Your task to perform on an android device: Go to display settings Image 0: 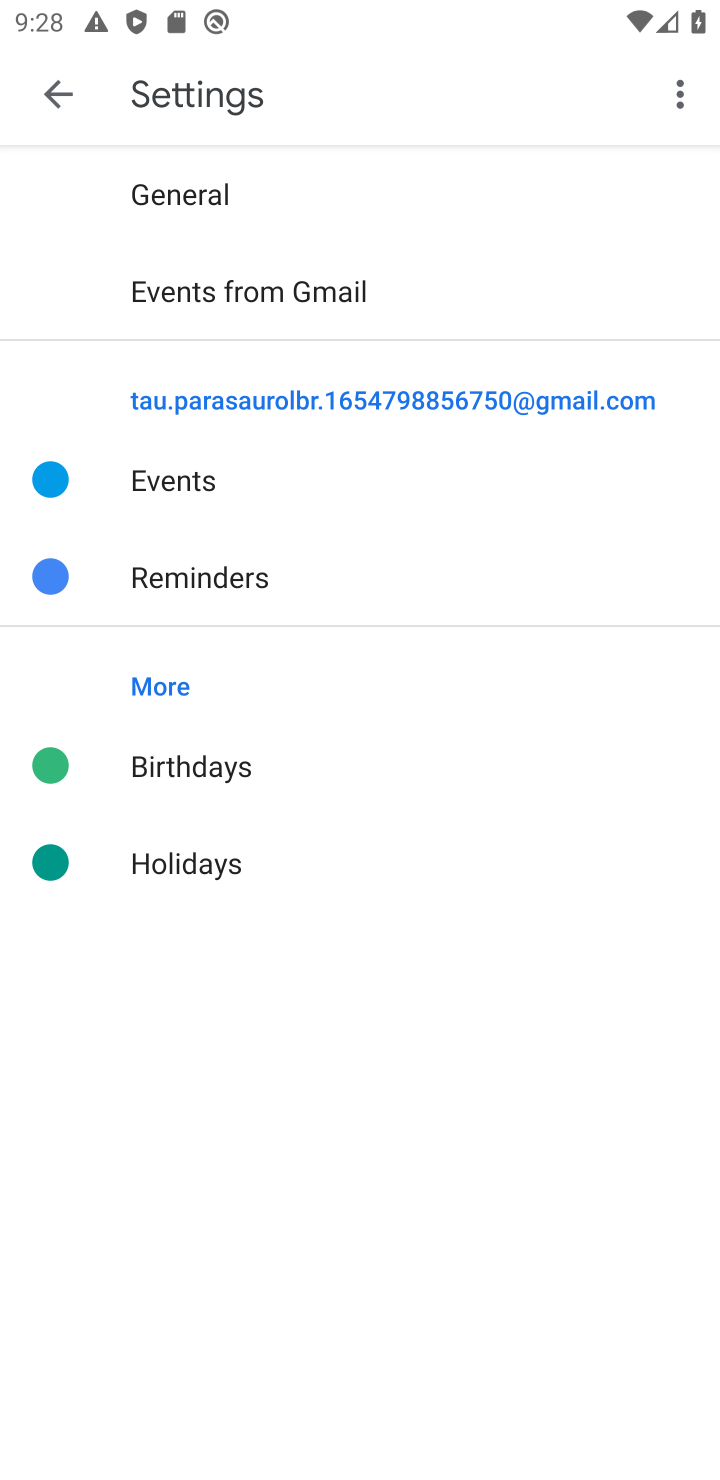
Step 0: press home button
Your task to perform on an android device: Go to display settings Image 1: 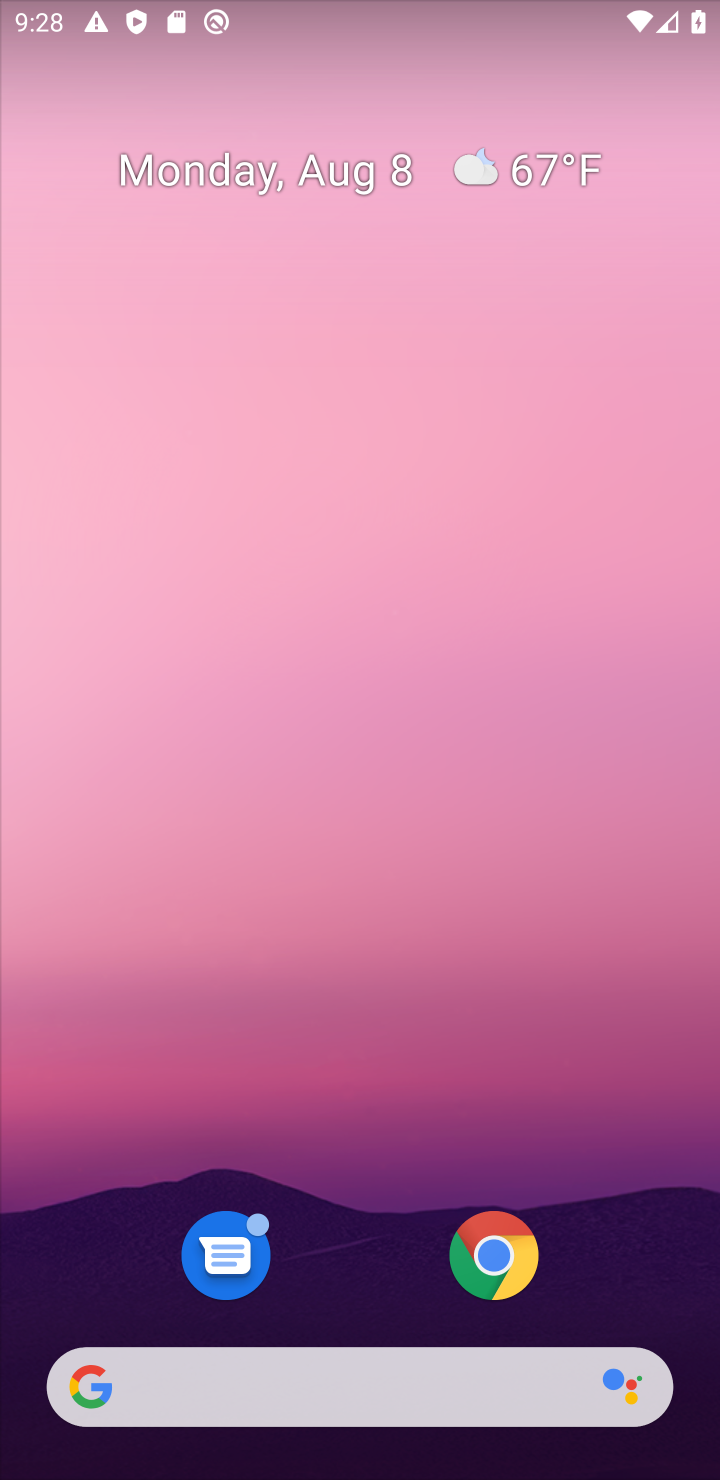
Step 1: drag from (23, 1410) to (335, 273)
Your task to perform on an android device: Go to display settings Image 2: 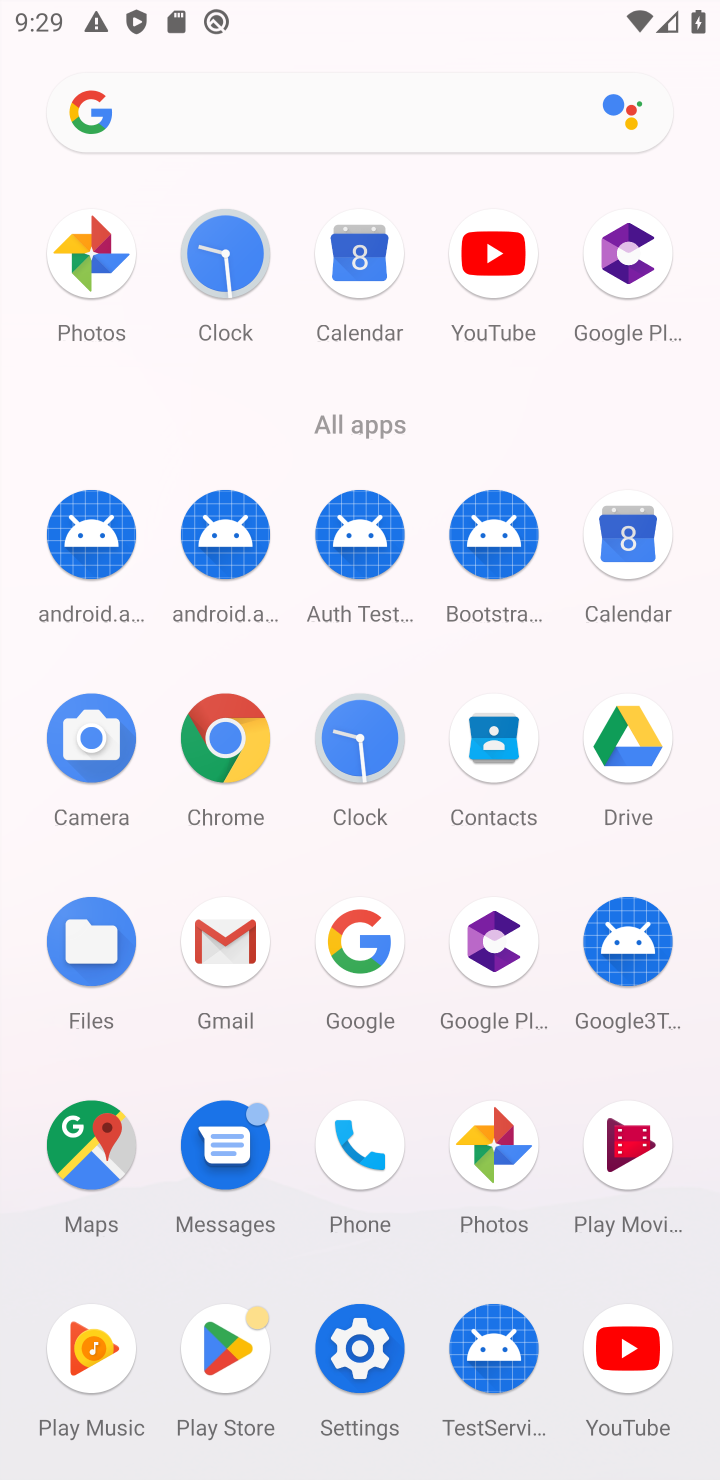
Step 2: click (362, 1353)
Your task to perform on an android device: Go to display settings Image 3: 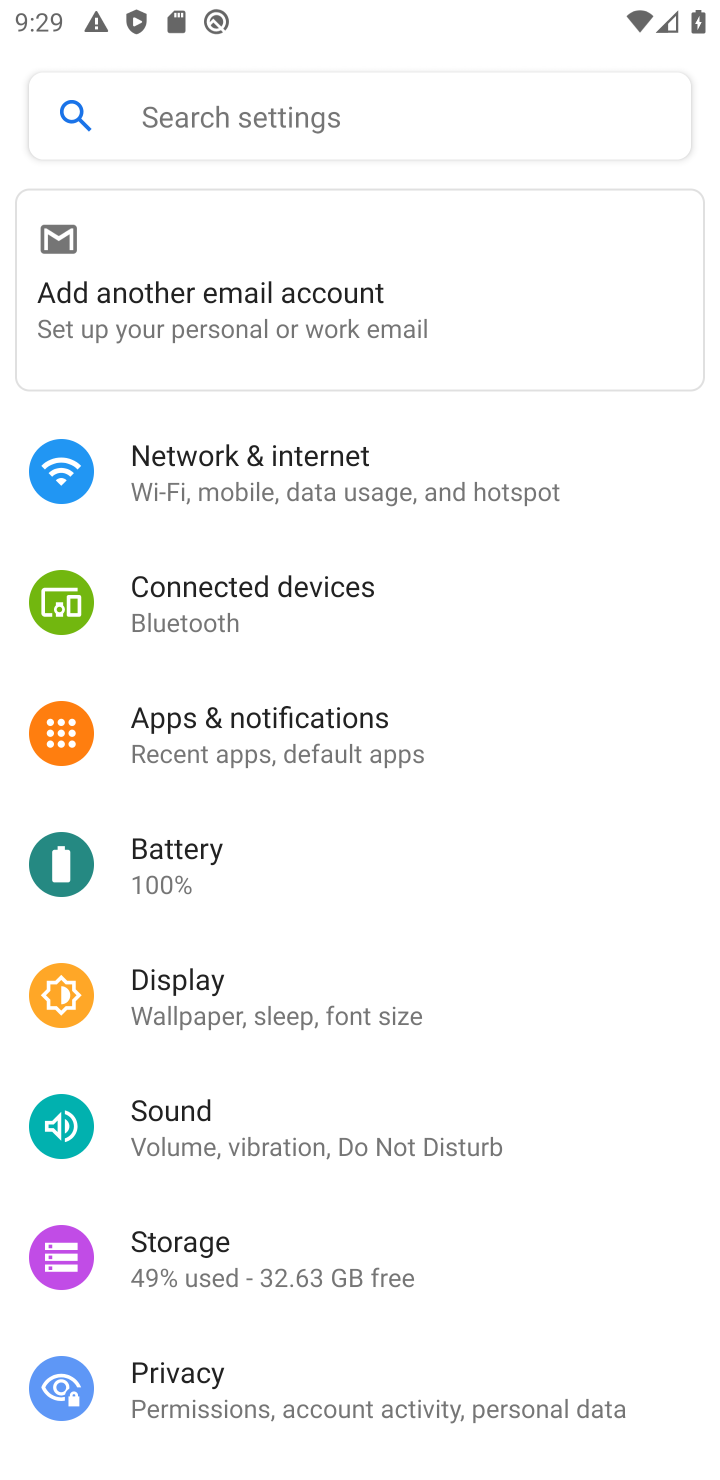
Step 3: click (350, 976)
Your task to perform on an android device: Go to display settings Image 4: 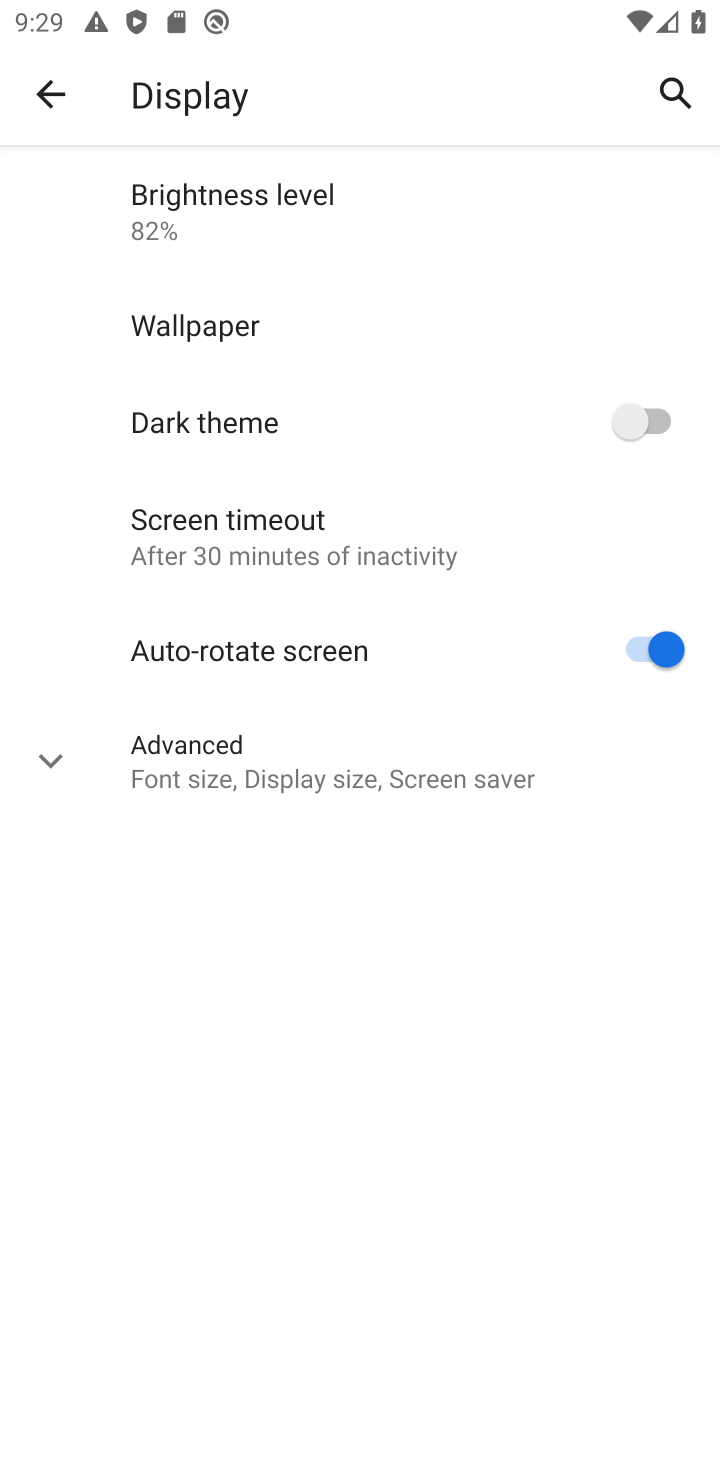
Step 4: task complete